Your task to perform on an android device: Turn off the flashlight Image 0: 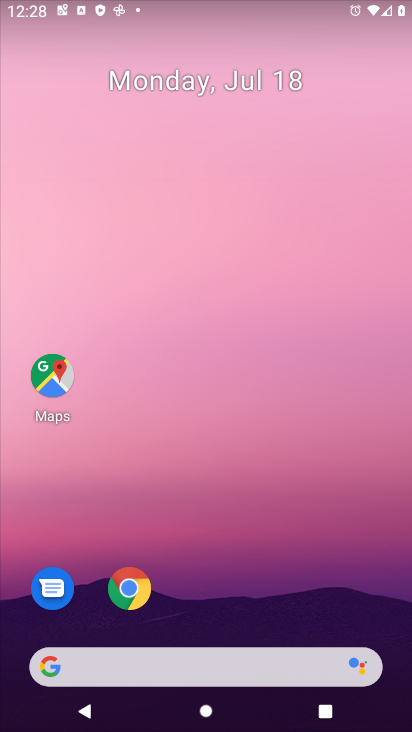
Step 0: drag from (229, 567) to (304, 210)
Your task to perform on an android device: Turn off the flashlight Image 1: 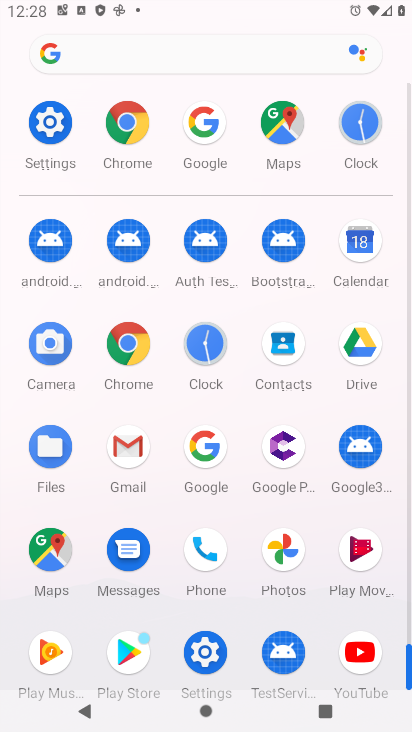
Step 1: task complete